Your task to perform on an android device: toggle airplane mode Image 0: 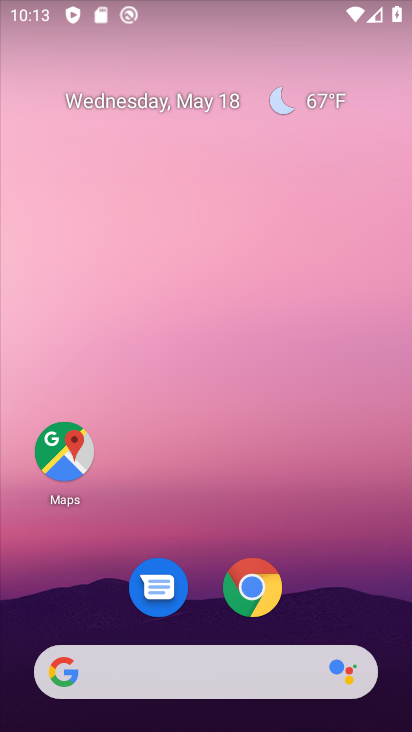
Step 0: drag from (306, 599) to (281, 226)
Your task to perform on an android device: toggle airplane mode Image 1: 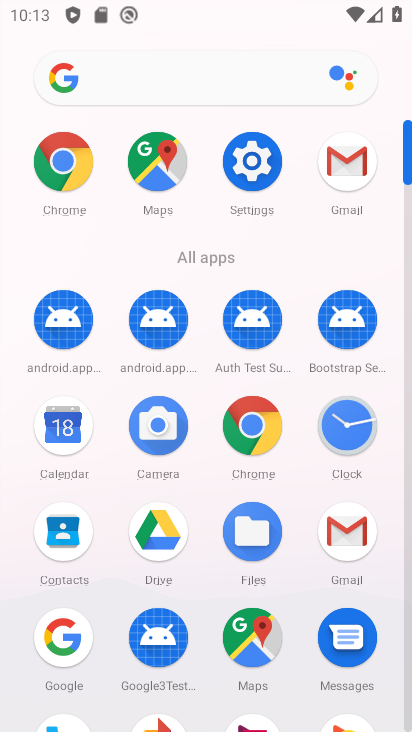
Step 1: click (250, 160)
Your task to perform on an android device: toggle airplane mode Image 2: 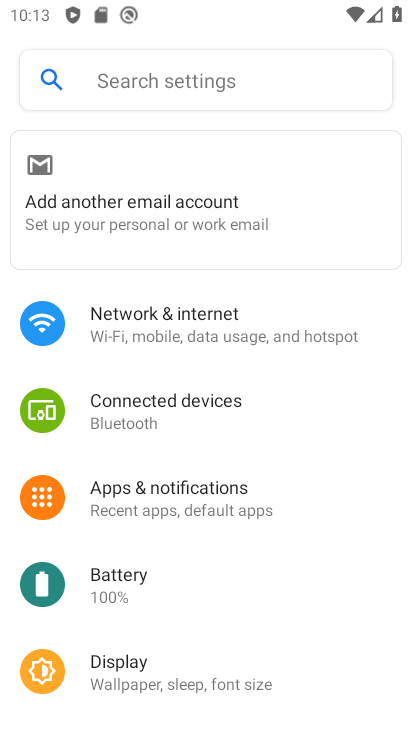
Step 2: click (207, 320)
Your task to perform on an android device: toggle airplane mode Image 3: 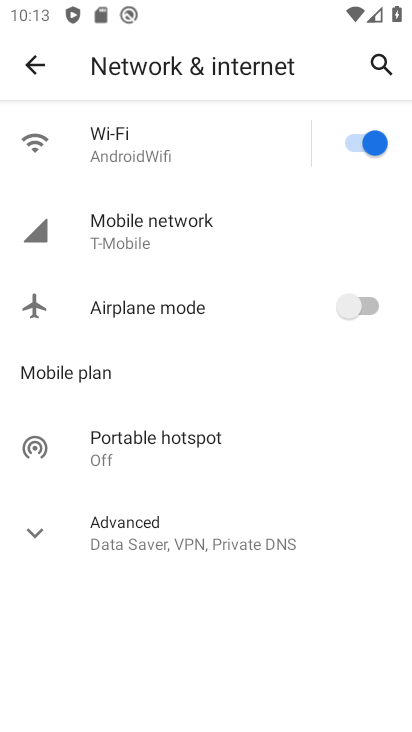
Step 3: click (351, 306)
Your task to perform on an android device: toggle airplane mode Image 4: 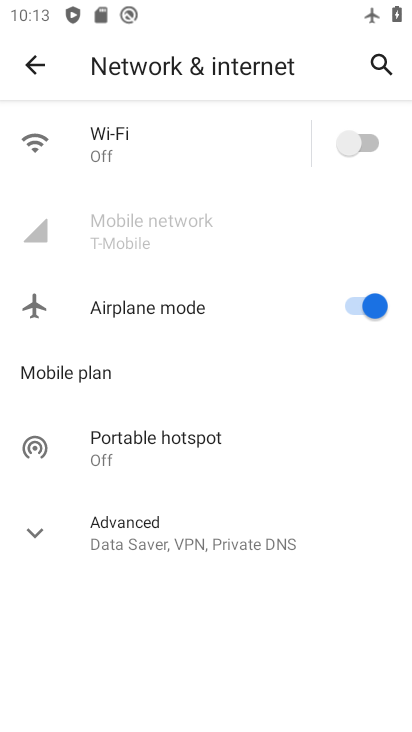
Step 4: task complete